Your task to perform on an android device: allow cookies in the chrome app Image 0: 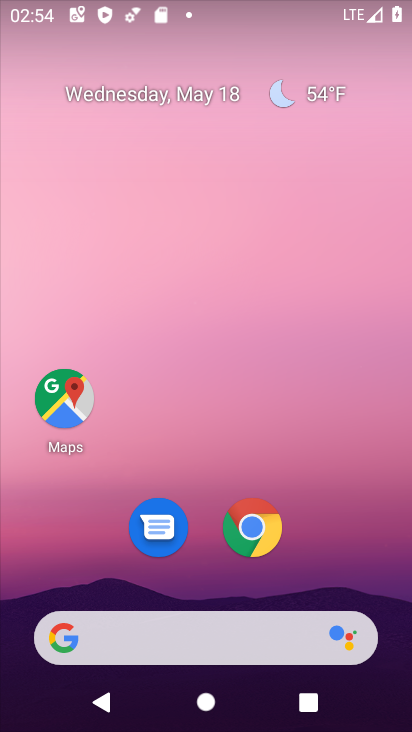
Step 0: click (242, 532)
Your task to perform on an android device: allow cookies in the chrome app Image 1: 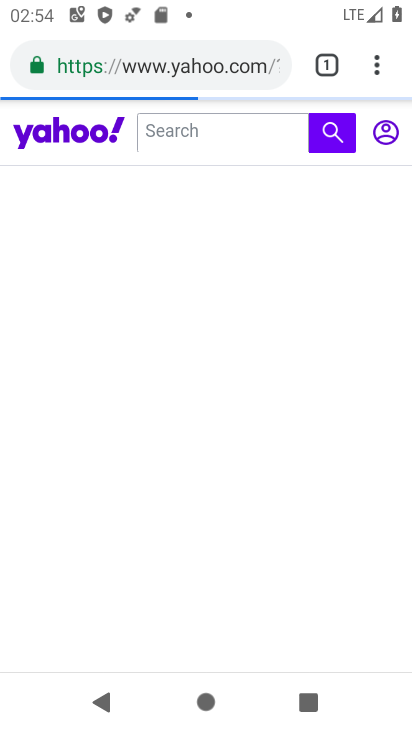
Step 1: click (380, 78)
Your task to perform on an android device: allow cookies in the chrome app Image 2: 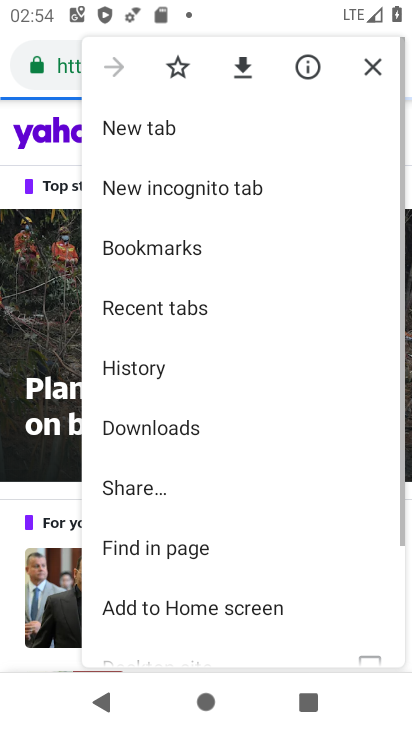
Step 2: drag from (329, 452) to (314, 132)
Your task to perform on an android device: allow cookies in the chrome app Image 3: 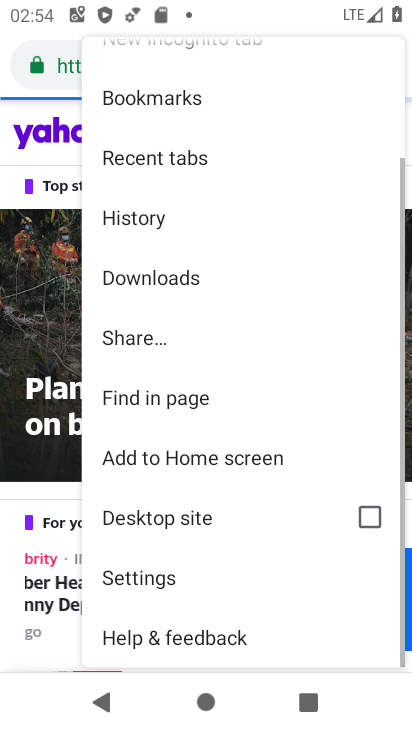
Step 3: click (134, 562)
Your task to perform on an android device: allow cookies in the chrome app Image 4: 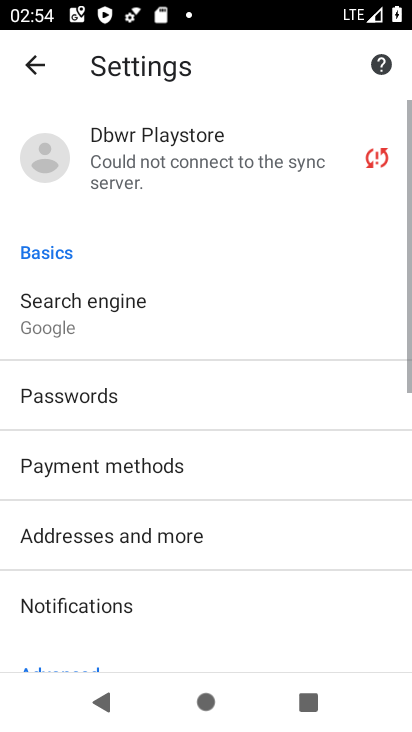
Step 4: drag from (143, 549) to (87, 106)
Your task to perform on an android device: allow cookies in the chrome app Image 5: 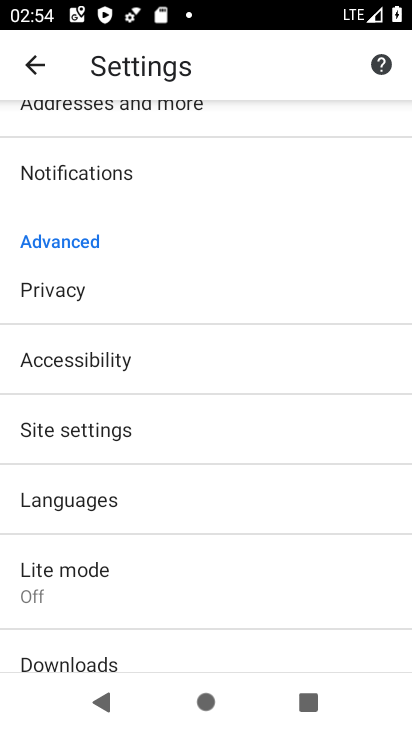
Step 5: click (117, 421)
Your task to perform on an android device: allow cookies in the chrome app Image 6: 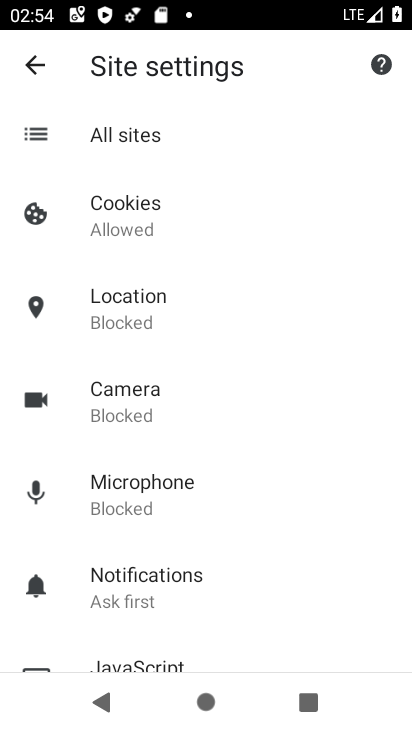
Step 6: drag from (189, 553) to (227, 526)
Your task to perform on an android device: allow cookies in the chrome app Image 7: 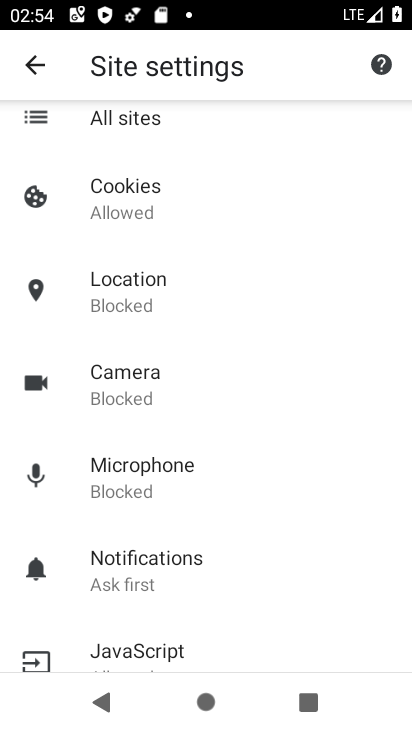
Step 7: click (164, 209)
Your task to perform on an android device: allow cookies in the chrome app Image 8: 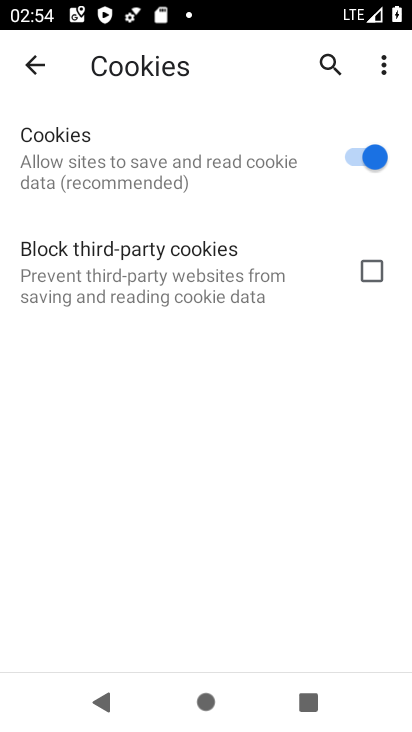
Step 8: task complete